Your task to perform on an android device: Open the phone app and click the voicemail tab. Image 0: 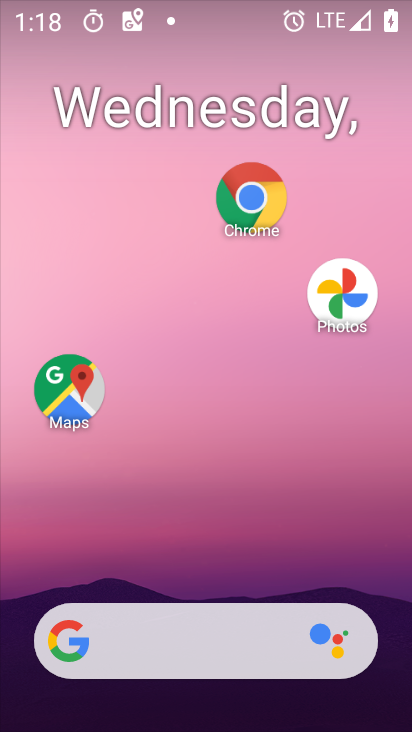
Step 0: drag from (209, 605) to (225, 145)
Your task to perform on an android device: Open the phone app and click the voicemail tab. Image 1: 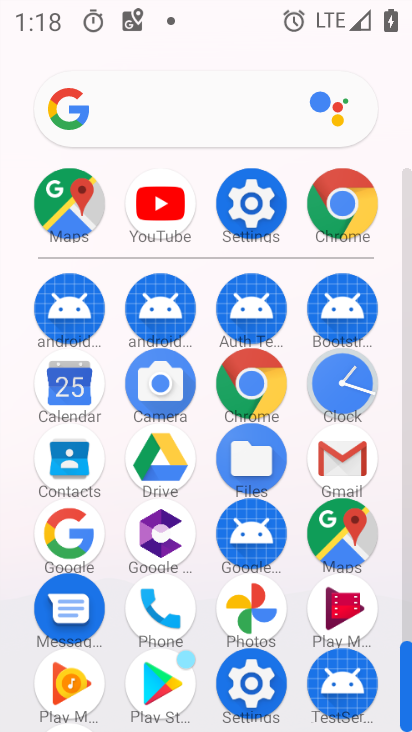
Step 1: drag from (242, 488) to (285, 195)
Your task to perform on an android device: Open the phone app and click the voicemail tab. Image 2: 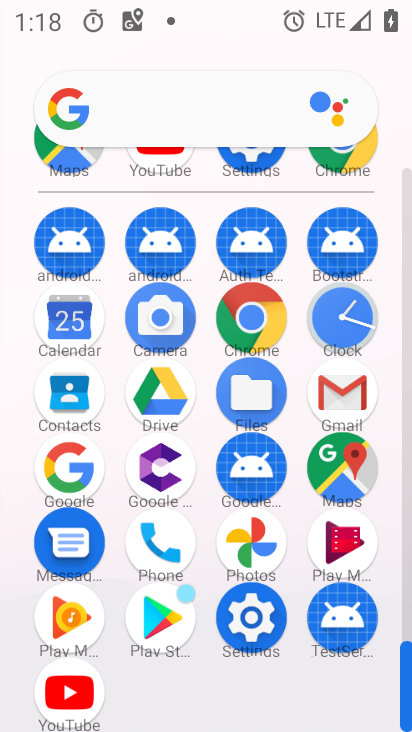
Step 2: click (148, 546)
Your task to perform on an android device: Open the phone app and click the voicemail tab. Image 3: 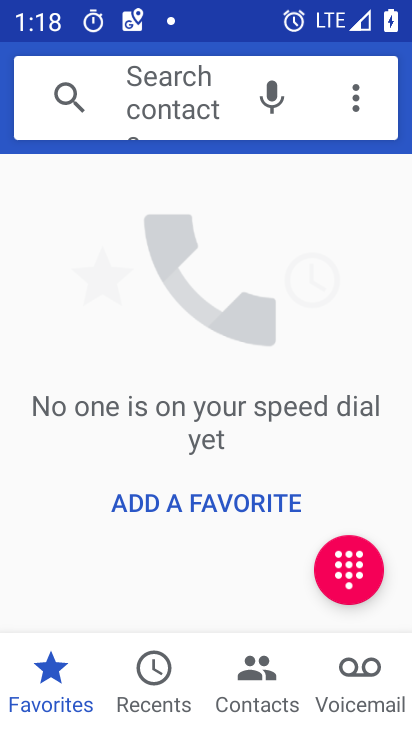
Step 3: click (355, 685)
Your task to perform on an android device: Open the phone app and click the voicemail tab. Image 4: 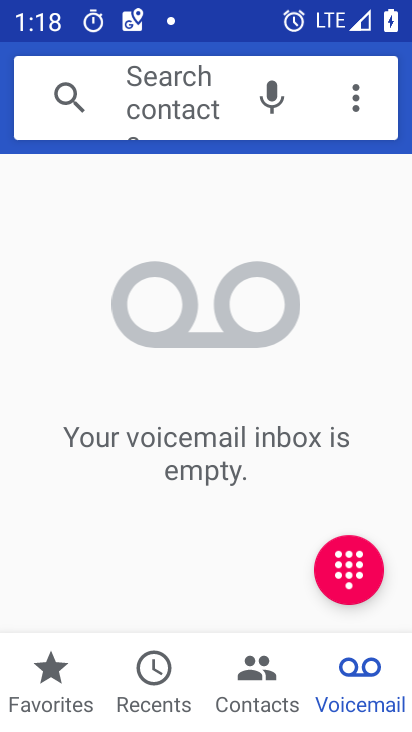
Step 4: task complete